Your task to perform on an android device: toggle priority inbox in the gmail app Image 0: 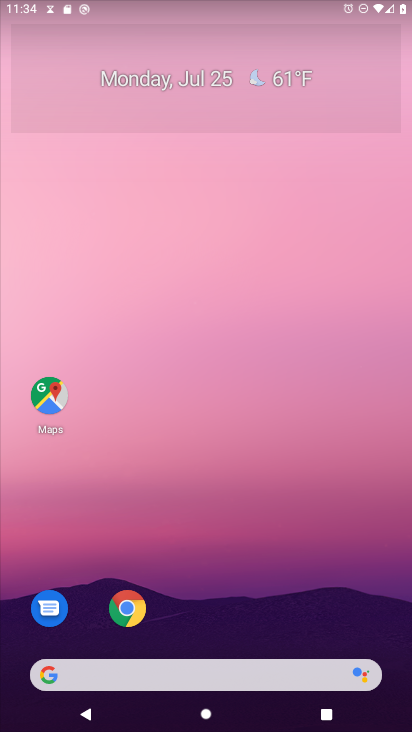
Step 0: drag from (196, 674) to (295, 25)
Your task to perform on an android device: toggle priority inbox in the gmail app Image 1: 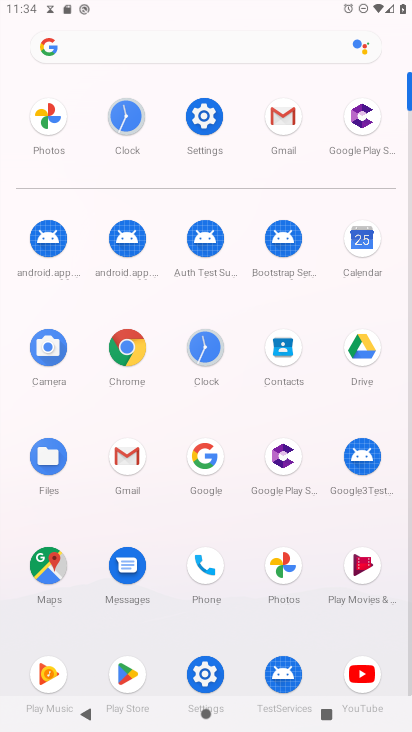
Step 1: click (281, 115)
Your task to perform on an android device: toggle priority inbox in the gmail app Image 2: 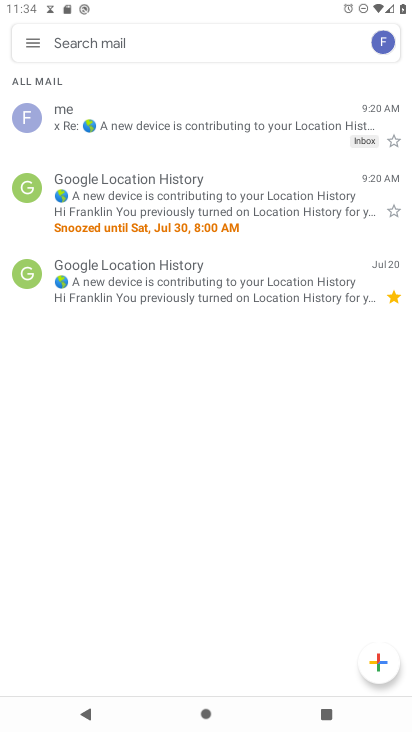
Step 2: click (33, 40)
Your task to perform on an android device: toggle priority inbox in the gmail app Image 3: 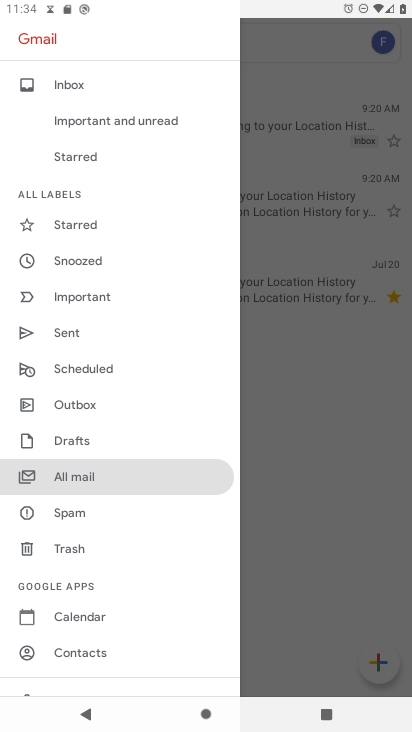
Step 3: drag from (116, 537) to (116, 403)
Your task to perform on an android device: toggle priority inbox in the gmail app Image 4: 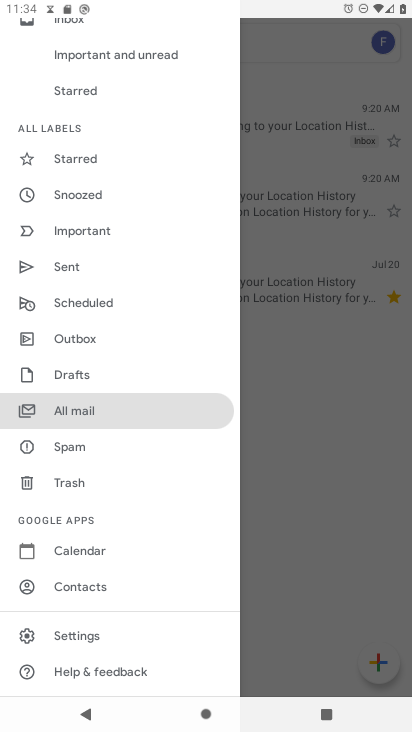
Step 4: click (88, 637)
Your task to perform on an android device: toggle priority inbox in the gmail app Image 5: 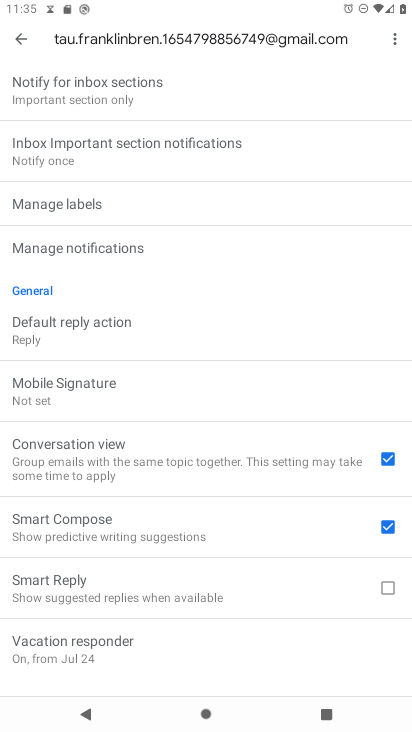
Step 5: drag from (102, 226) to (82, 389)
Your task to perform on an android device: toggle priority inbox in the gmail app Image 6: 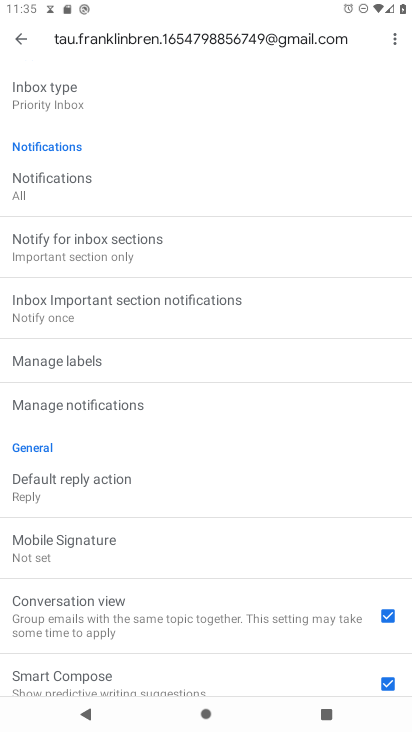
Step 6: click (70, 111)
Your task to perform on an android device: toggle priority inbox in the gmail app Image 7: 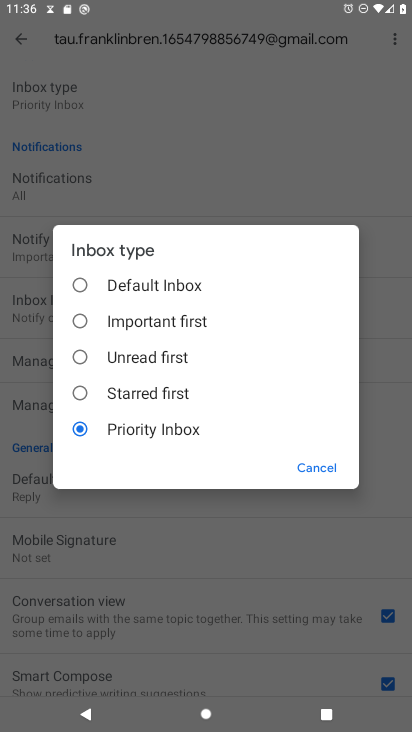
Step 7: click (86, 395)
Your task to perform on an android device: toggle priority inbox in the gmail app Image 8: 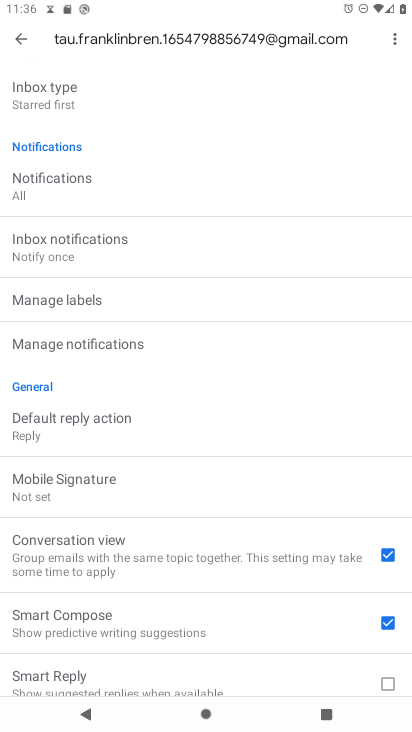
Step 8: task complete